Your task to perform on an android device: Go to Reddit.com Image 0: 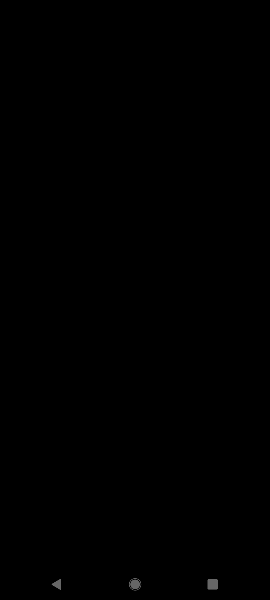
Step 0: press back button
Your task to perform on an android device: Go to Reddit.com Image 1: 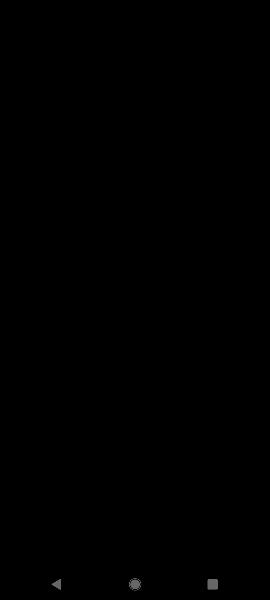
Step 1: press home button
Your task to perform on an android device: Go to Reddit.com Image 2: 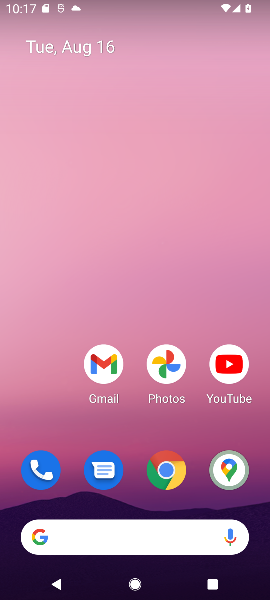
Step 2: click (136, 543)
Your task to perform on an android device: Go to Reddit.com Image 3: 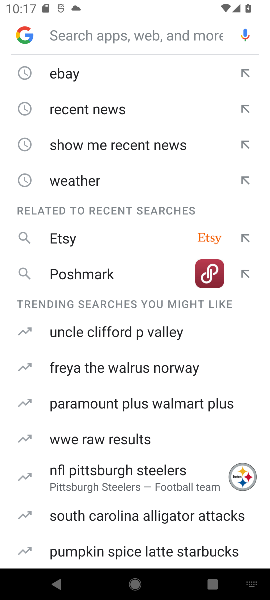
Step 3: type "reddit.com"
Your task to perform on an android device: Go to Reddit.com Image 4: 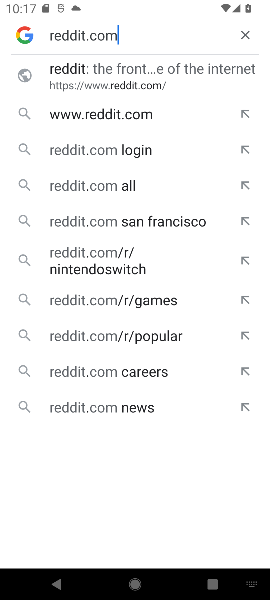
Step 4: click (156, 74)
Your task to perform on an android device: Go to Reddit.com Image 5: 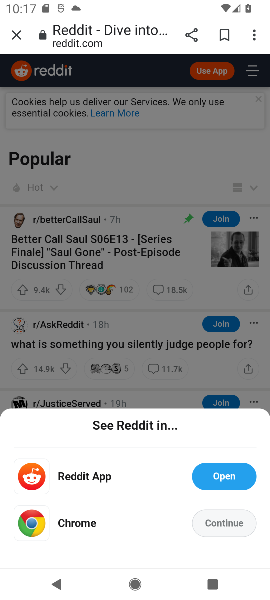
Step 5: click (219, 521)
Your task to perform on an android device: Go to Reddit.com Image 6: 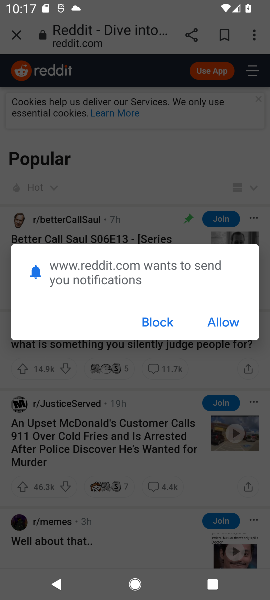
Step 6: click (234, 321)
Your task to perform on an android device: Go to Reddit.com Image 7: 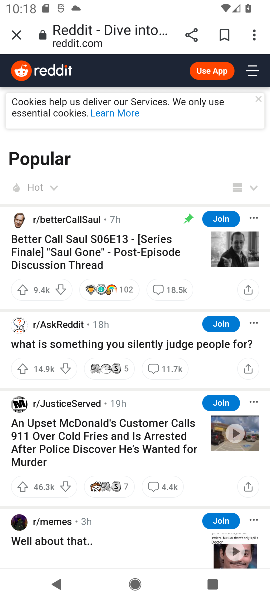
Step 7: task complete